Your task to perform on an android device: open app "Truecaller" Image 0: 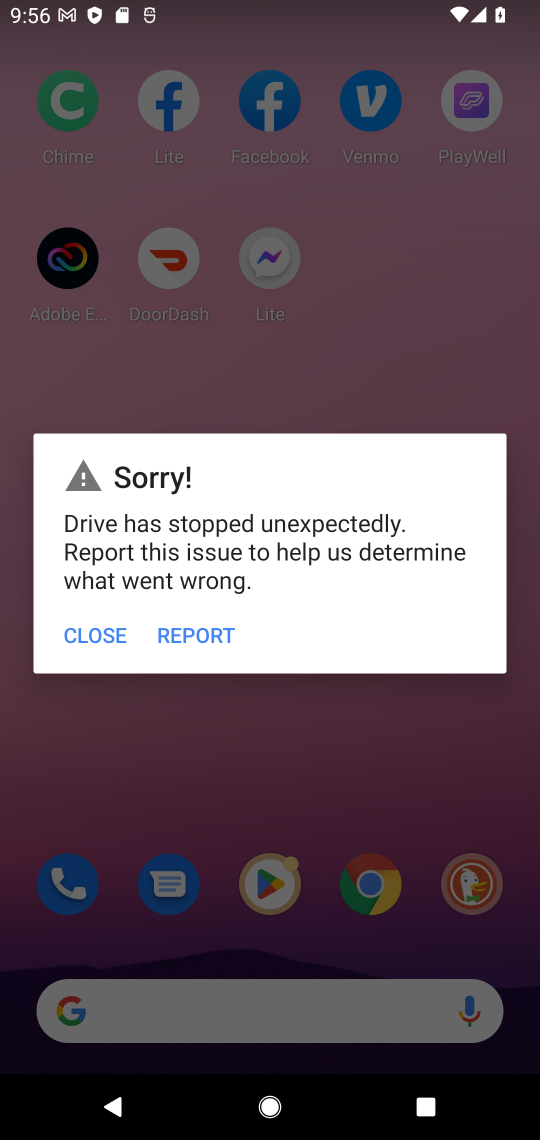
Step 0: click (81, 655)
Your task to perform on an android device: open app "Truecaller" Image 1: 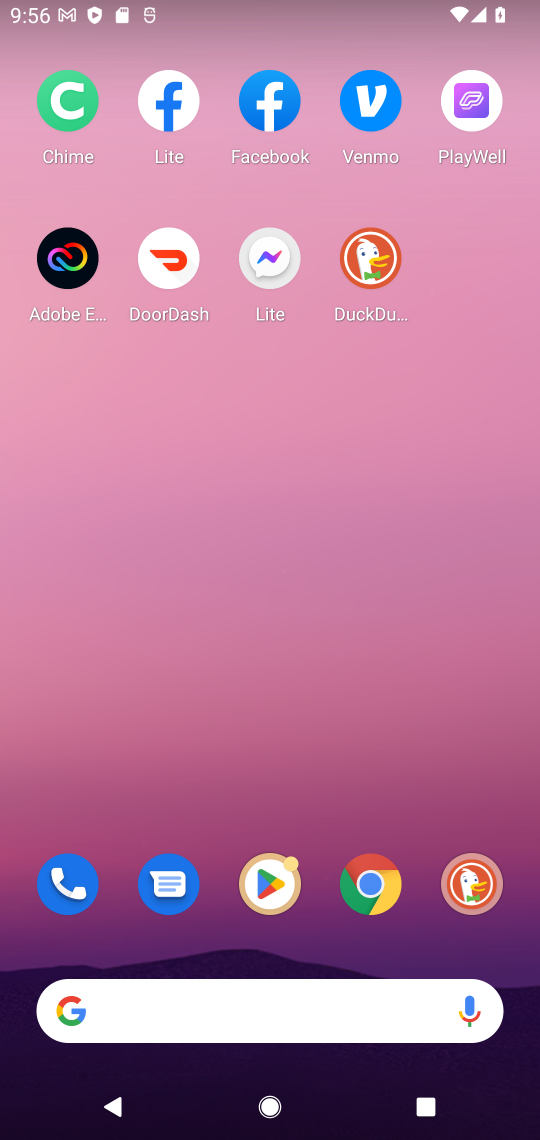
Step 1: click (268, 900)
Your task to perform on an android device: open app "Truecaller" Image 2: 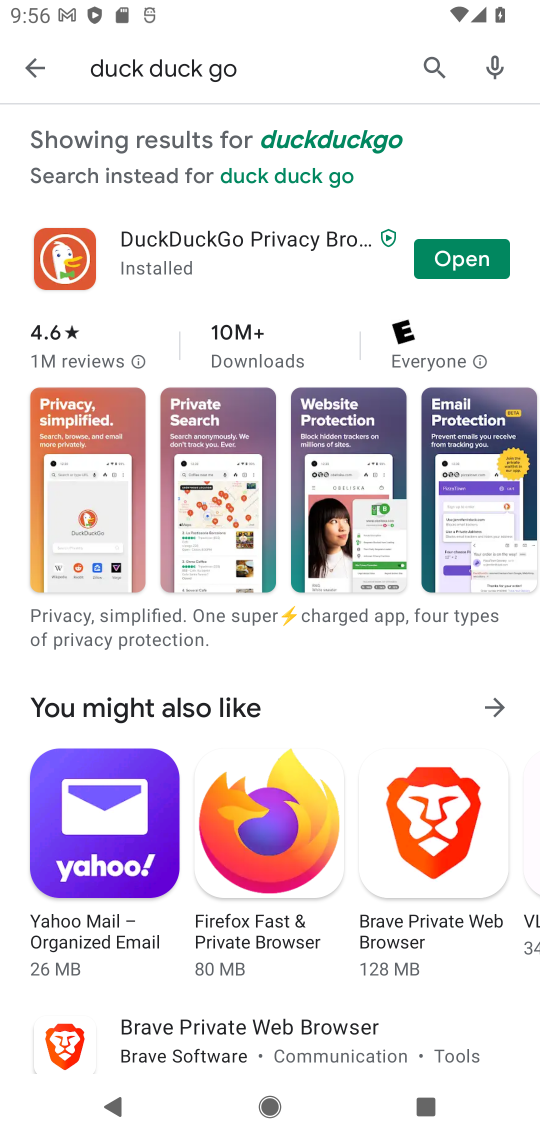
Step 2: click (439, 62)
Your task to perform on an android device: open app "Truecaller" Image 3: 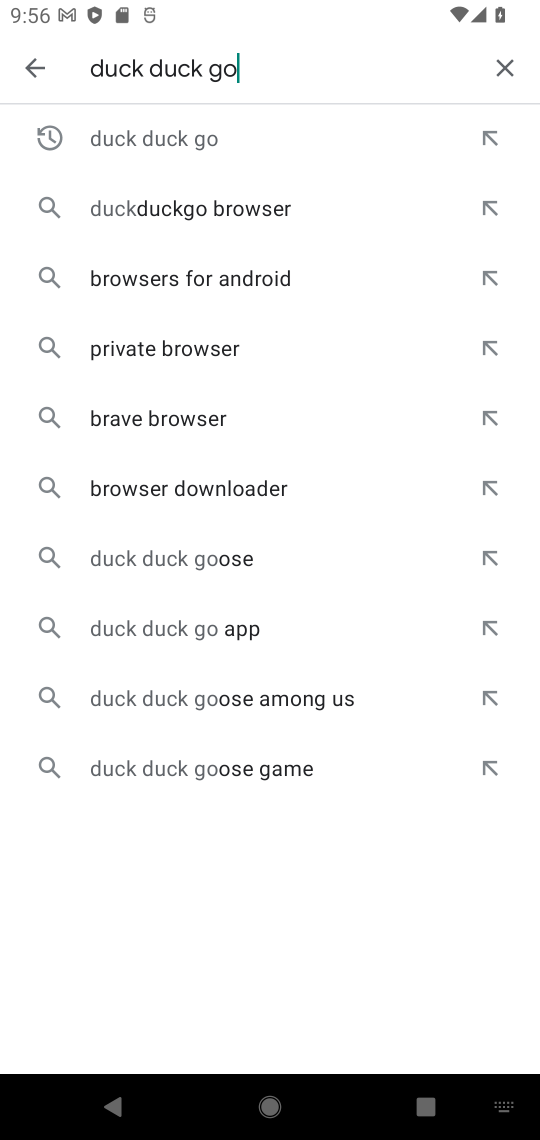
Step 3: click (501, 82)
Your task to perform on an android device: open app "Truecaller" Image 4: 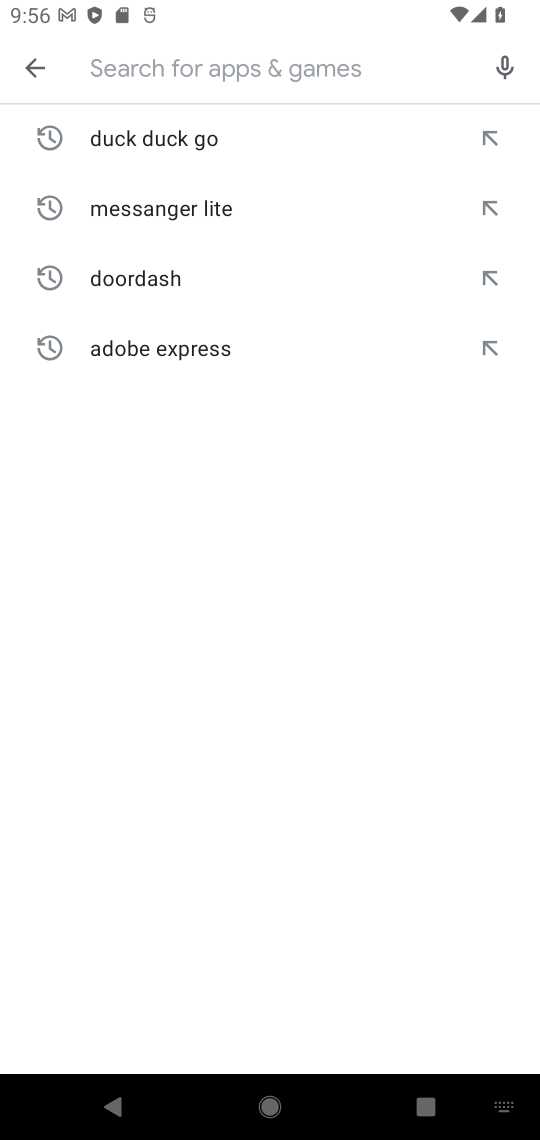
Step 4: type "truecaler"
Your task to perform on an android device: open app "Truecaller" Image 5: 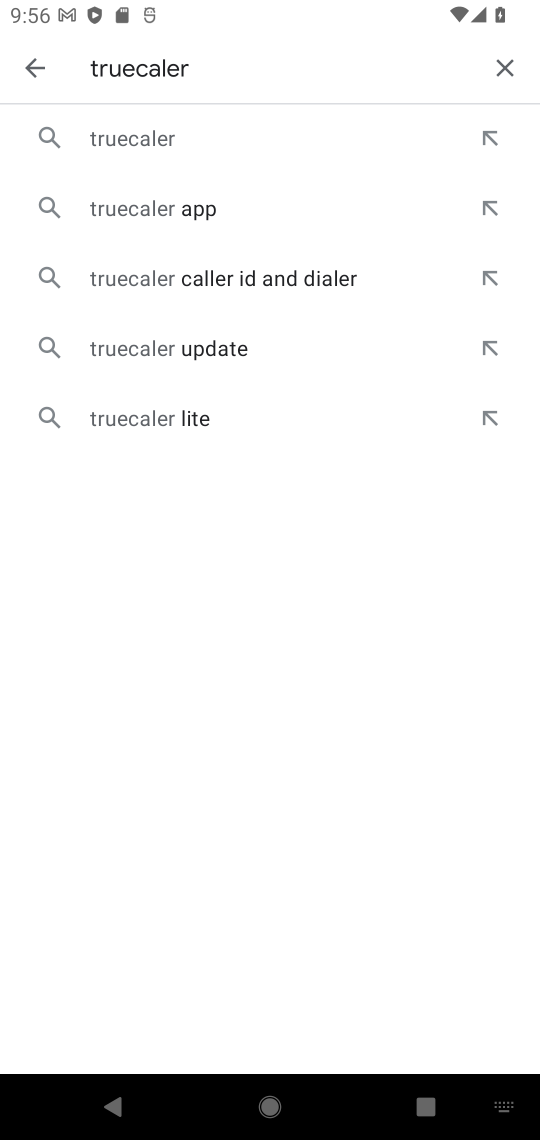
Step 5: click (281, 172)
Your task to perform on an android device: open app "Truecaller" Image 6: 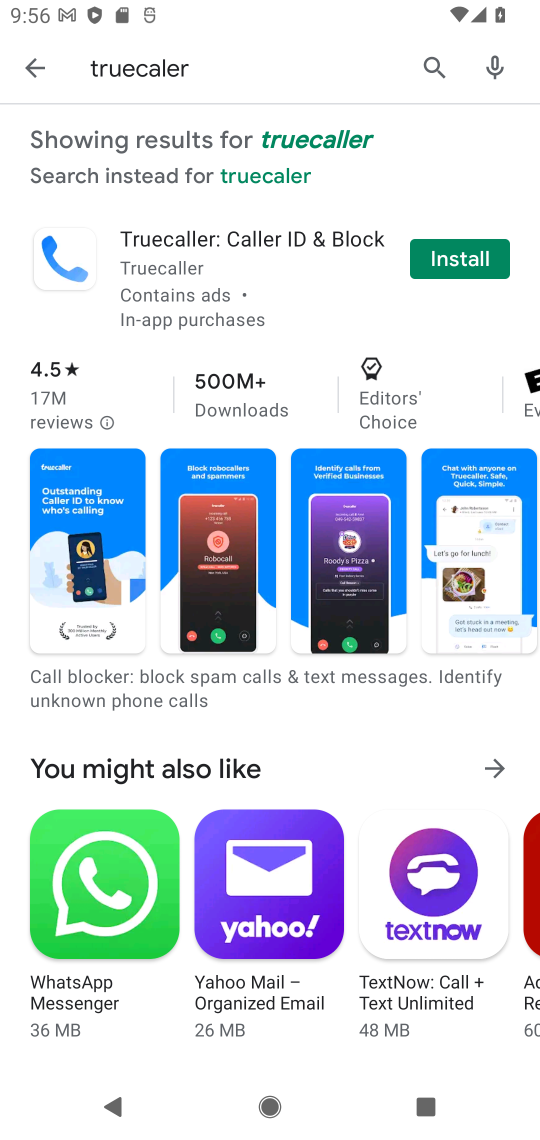
Step 6: click (430, 253)
Your task to perform on an android device: open app "Truecaller" Image 7: 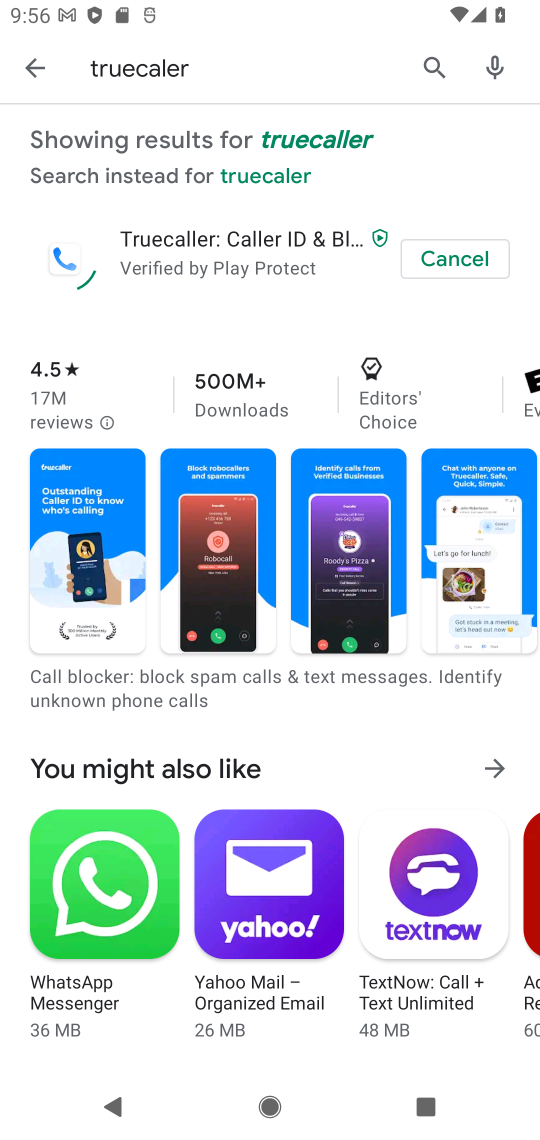
Step 7: task complete